Your task to perform on an android device: Open the calendar and show me this week's events Image 0: 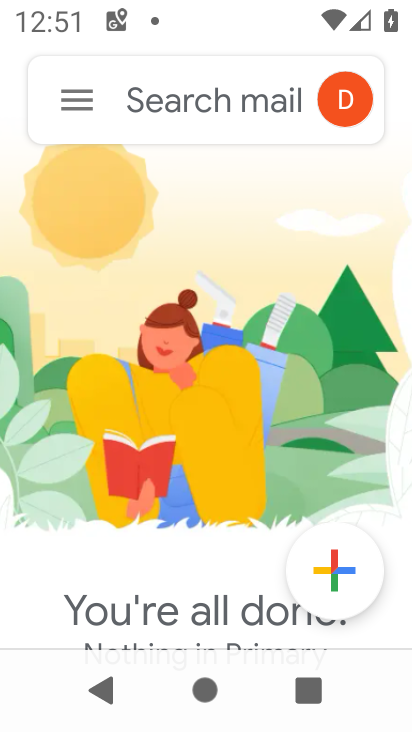
Step 0: press home button
Your task to perform on an android device: Open the calendar and show me this week's events Image 1: 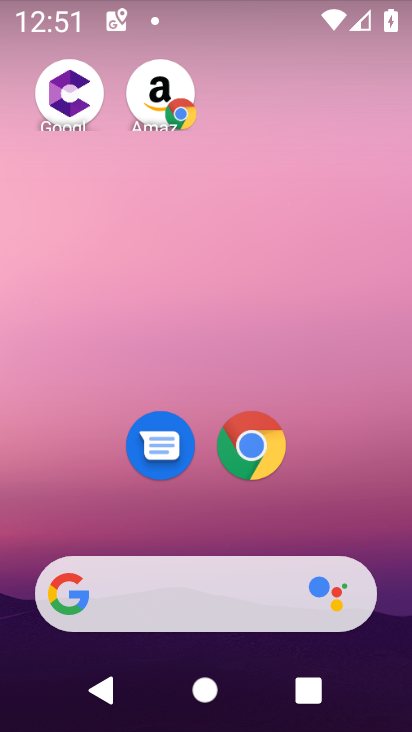
Step 1: drag from (340, 516) to (284, 15)
Your task to perform on an android device: Open the calendar and show me this week's events Image 2: 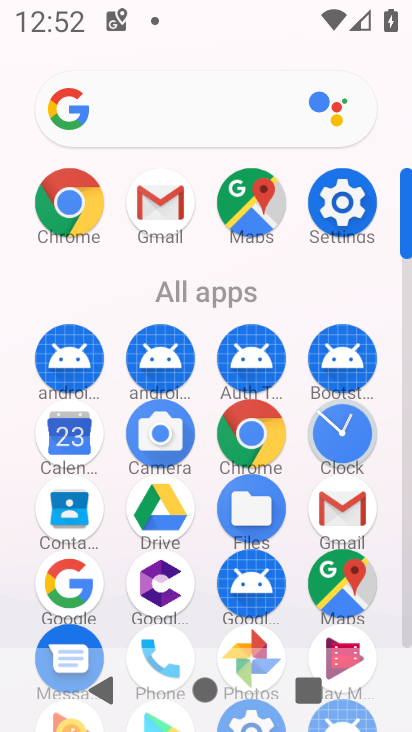
Step 2: click (69, 442)
Your task to perform on an android device: Open the calendar and show me this week's events Image 3: 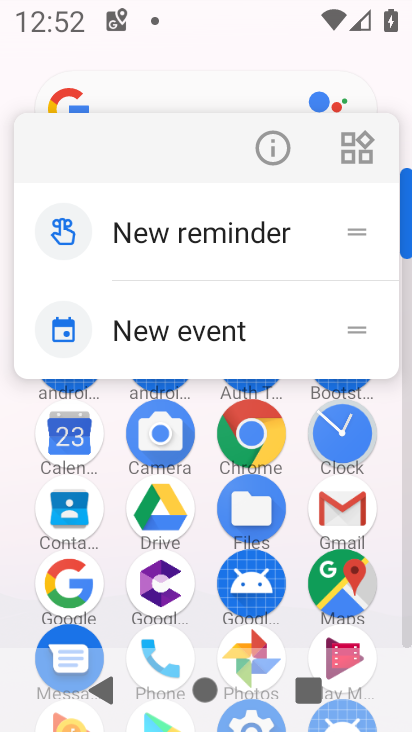
Step 3: click (73, 437)
Your task to perform on an android device: Open the calendar and show me this week's events Image 4: 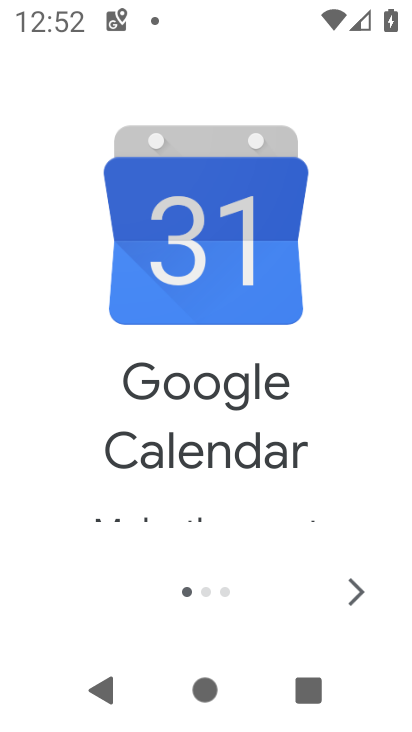
Step 4: click (368, 592)
Your task to perform on an android device: Open the calendar and show me this week's events Image 5: 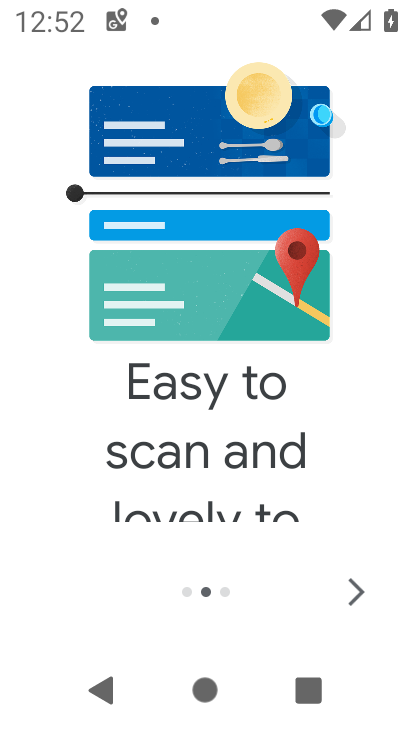
Step 5: click (369, 592)
Your task to perform on an android device: Open the calendar and show me this week's events Image 6: 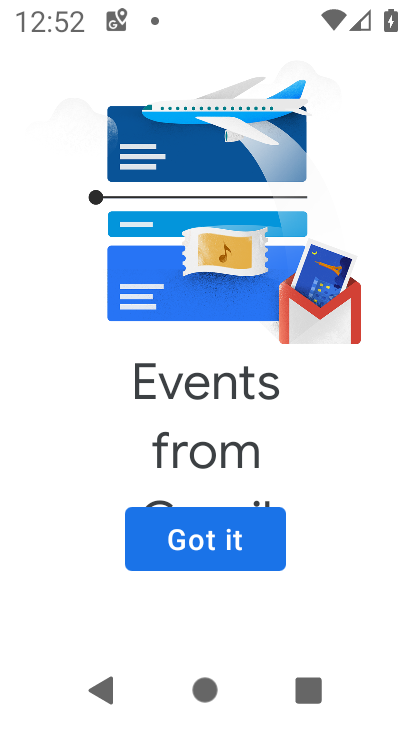
Step 6: click (363, 592)
Your task to perform on an android device: Open the calendar and show me this week's events Image 7: 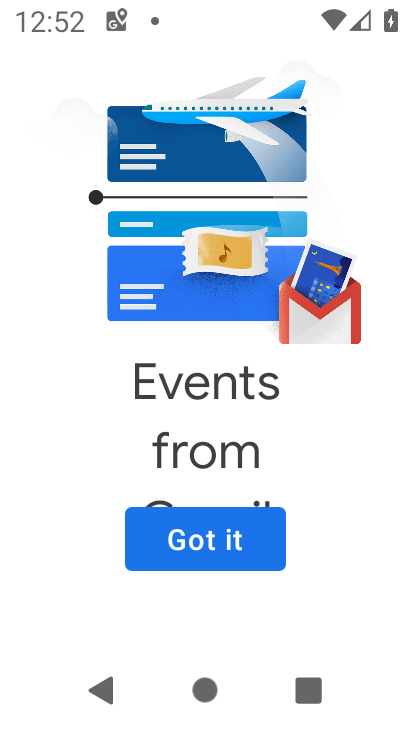
Step 7: click (251, 532)
Your task to perform on an android device: Open the calendar and show me this week's events Image 8: 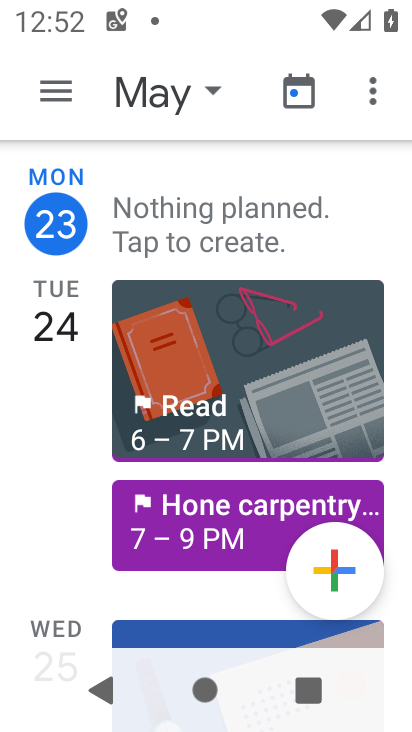
Step 8: click (297, 91)
Your task to perform on an android device: Open the calendar and show me this week's events Image 9: 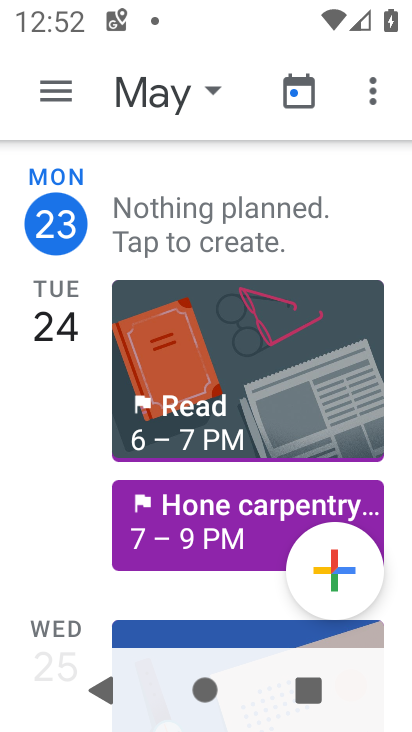
Step 9: click (307, 94)
Your task to perform on an android device: Open the calendar and show me this week's events Image 10: 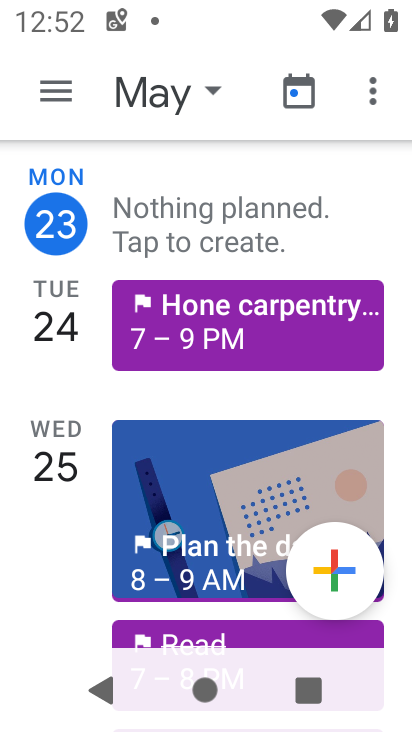
Step 10: click (205, 91)
Your task to perform on an android device: Open the calendar and show me this week's events Image 11: 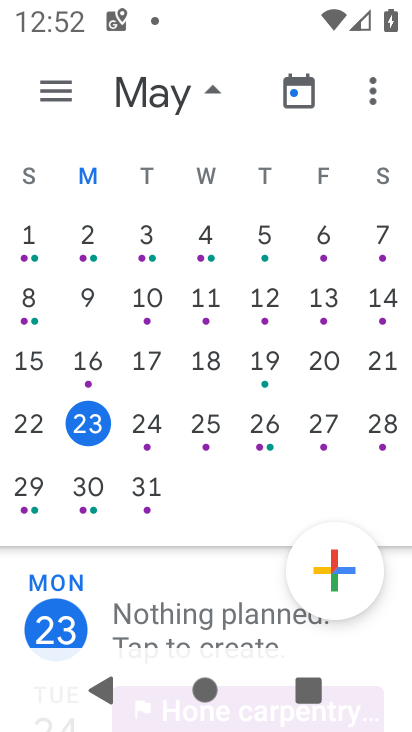
Step 11: click (150, 425)
Your task to perform on an android device: Open the calendar and show me this week's events Image 12: 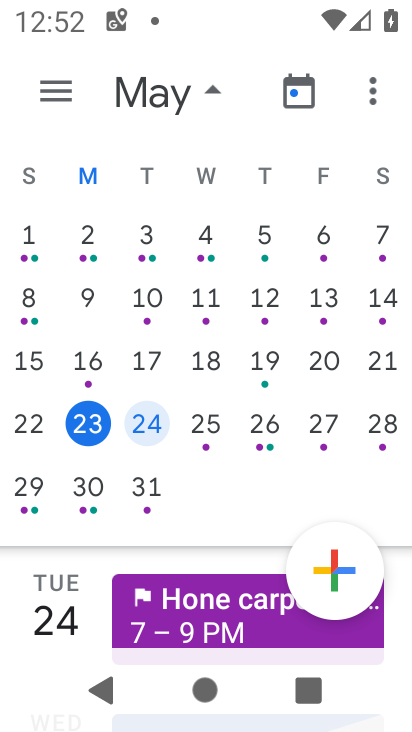
Step 12: click (68, 86)
Your task to perform on an android device: Open the calendar and show me this week's events Image 13: 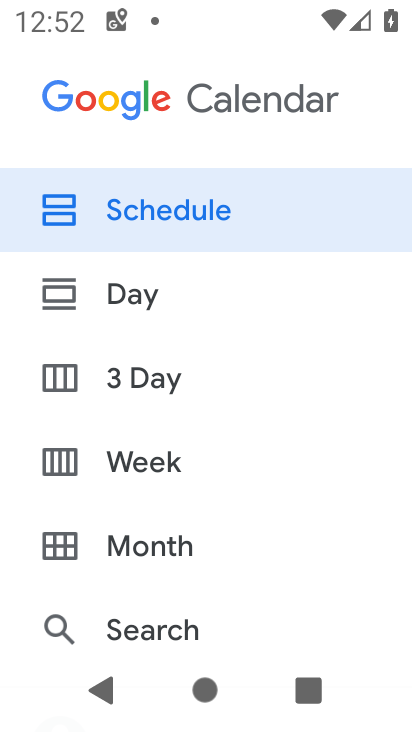
Step 13: click (79, 208)
Your task to perform on an android device: Open the calendar and show me this week's events Image 14: 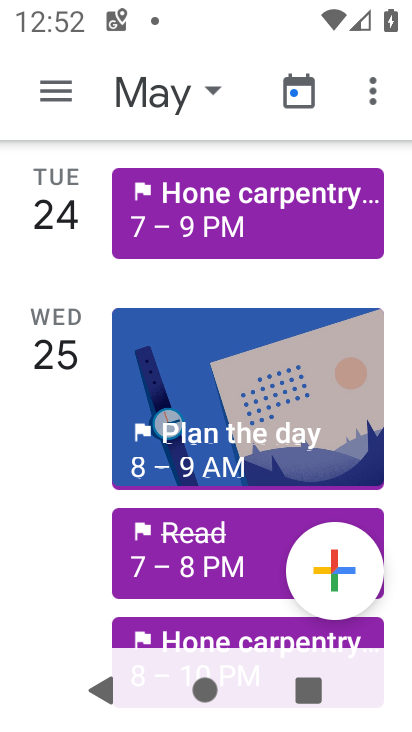
Step 14: task complete